Your task to perform on an android device: Go to network settings Image 0: 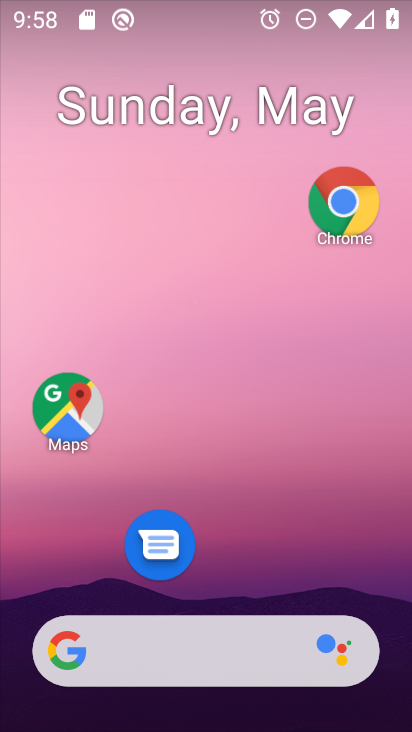
Step 0: drag from (242, 562) to (150, 11)
Your task to perform on an android device: Go to network settings Image 1: 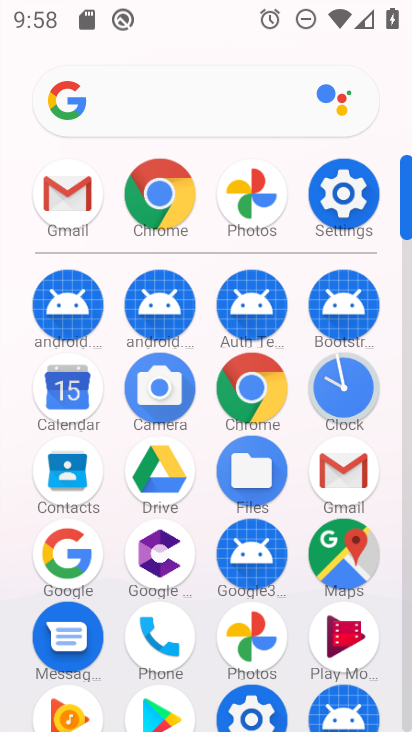
Step 1: click (343, 199)
Your task to perform on an android device: Go to network settings Image 2: 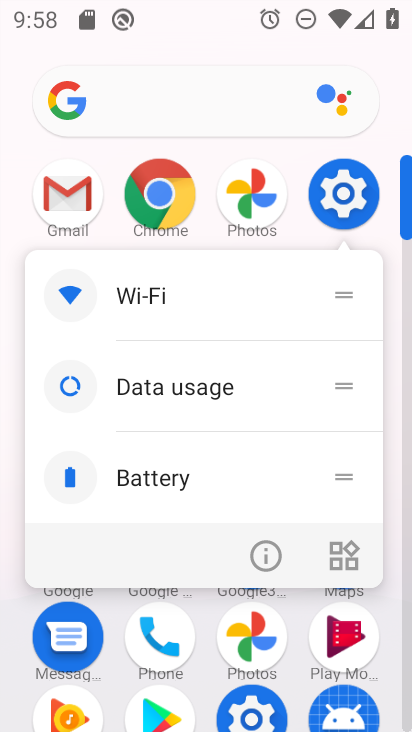
Step 2: click (343, 199)
Your task to perform on an android device: Go to network settings Image 3: 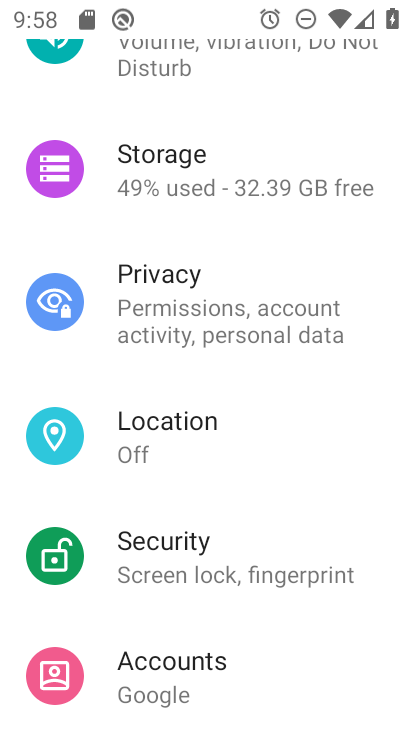
Step 3: drag from (214, 215) to (204, 549)
Your task to perform on an android device: Go to network settings Image 4: 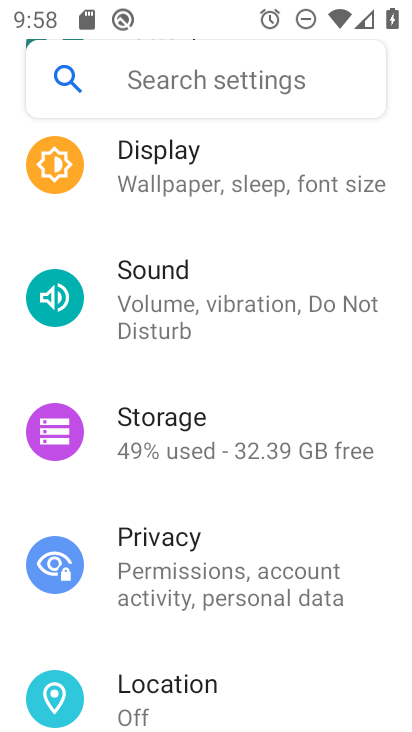
Step 4: drag from (199, 244) to (168, 594)
Your task to perform on an android device: Go to network settings Image 5: 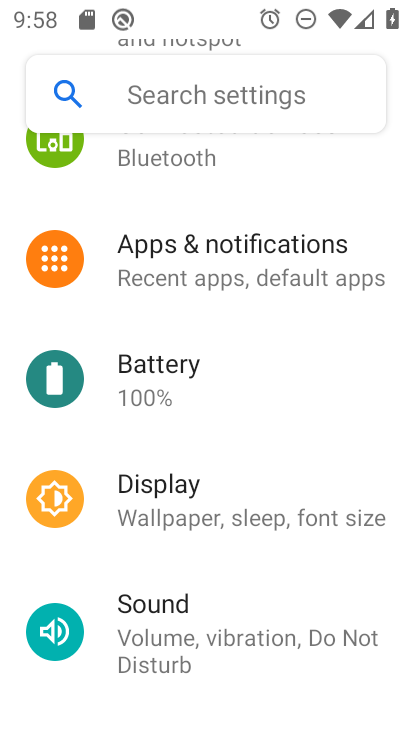
Step 5: drag from (184, 258) to (165, 528)
Your task to perform on an android device: Go to network settings Image 6: 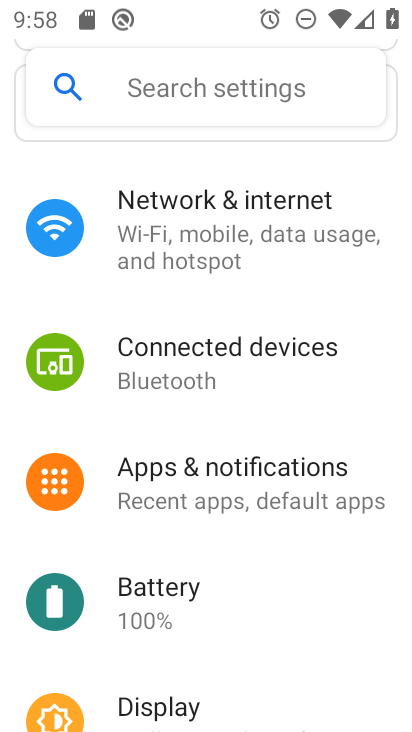
Step 6: click (192, 207)
Your task to perform on an android device: Go to network settings Image 7: 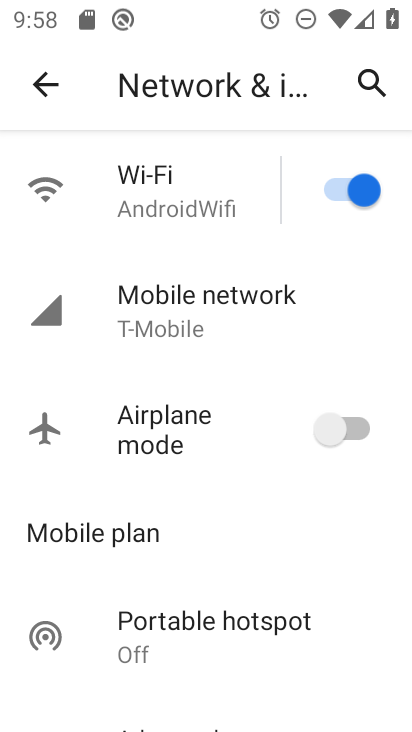
Step 7: click (199, 340)
Your task to perform on an android device: Go to network settings Image 8: 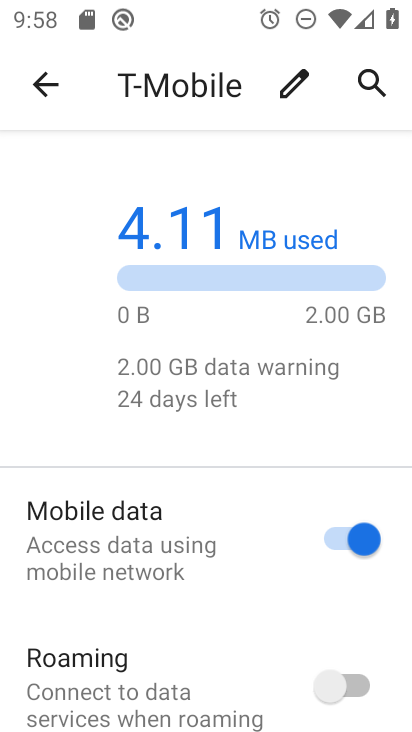
Step 8: task complete